Your task to perform on an android device: Open Youtube and go to the subscriptions tab Image 0: 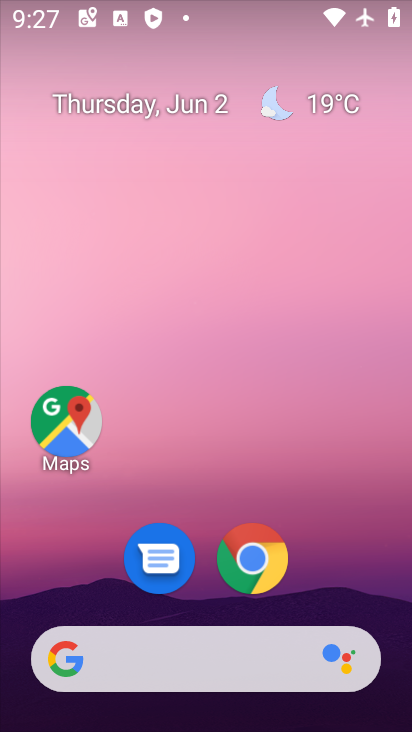
Step 0: drag from (391, 618) to (313, 123)
Your task to perform on an android device: Open Youtube and go to the subscriptions tab Image 1: 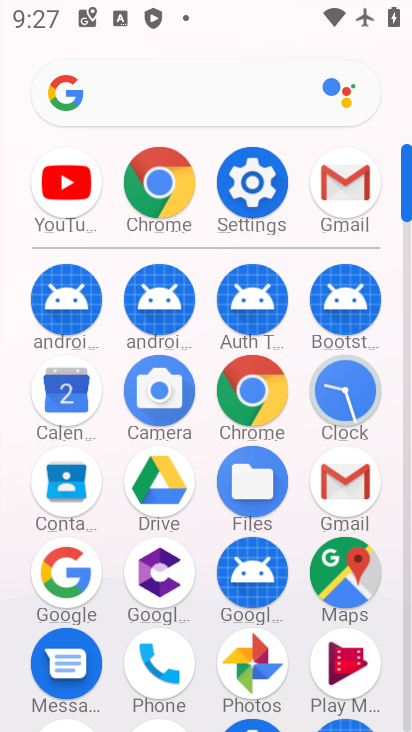
Step 1: click (409, 708)
Your task to perform on an android device: Open Youtube and go to the subscriptions tab Image 2: 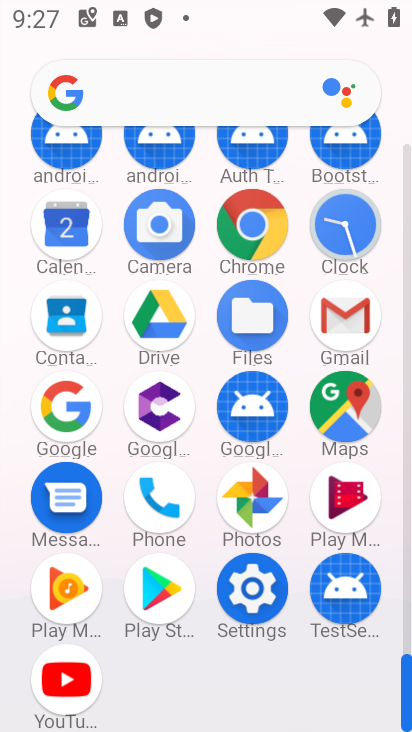
Step 2: click (67, 682)
Your task to perform on an android device: Open Youtube and go to the subscriptions tab Image 3: 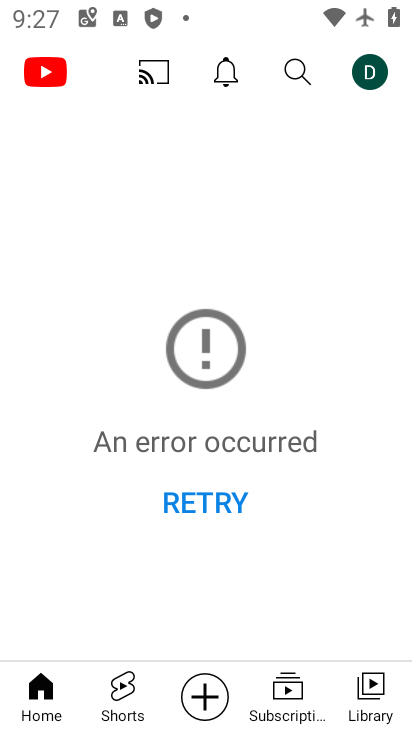
Step 3: click (287, 691)
Your task to perform on an android device: Open Youtube and go to the subscriptions tab Image 4: 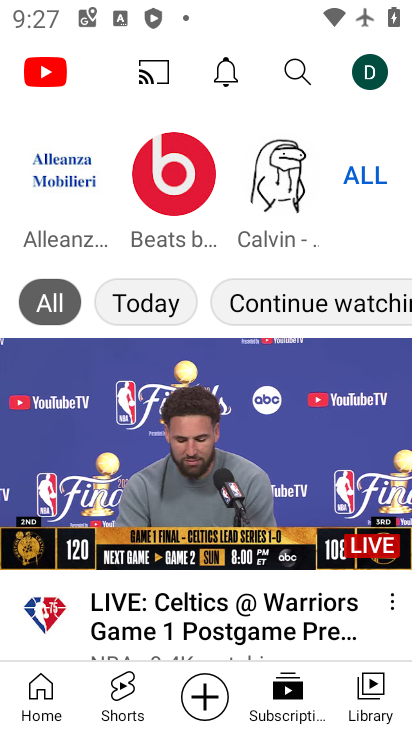
Step 4: task complete